Your task to perform on an android device: install app "Life360: Find Family & Friends" Image 0: 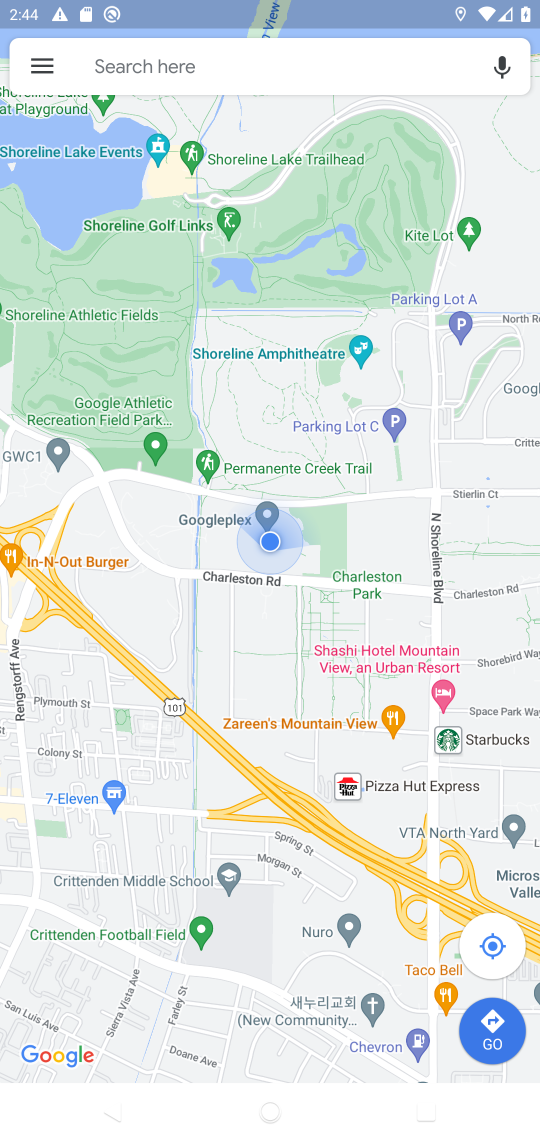
Step 0: press home button
Your task to perform on an android device: install app "Life360: Find Family & Friends" Image 1: 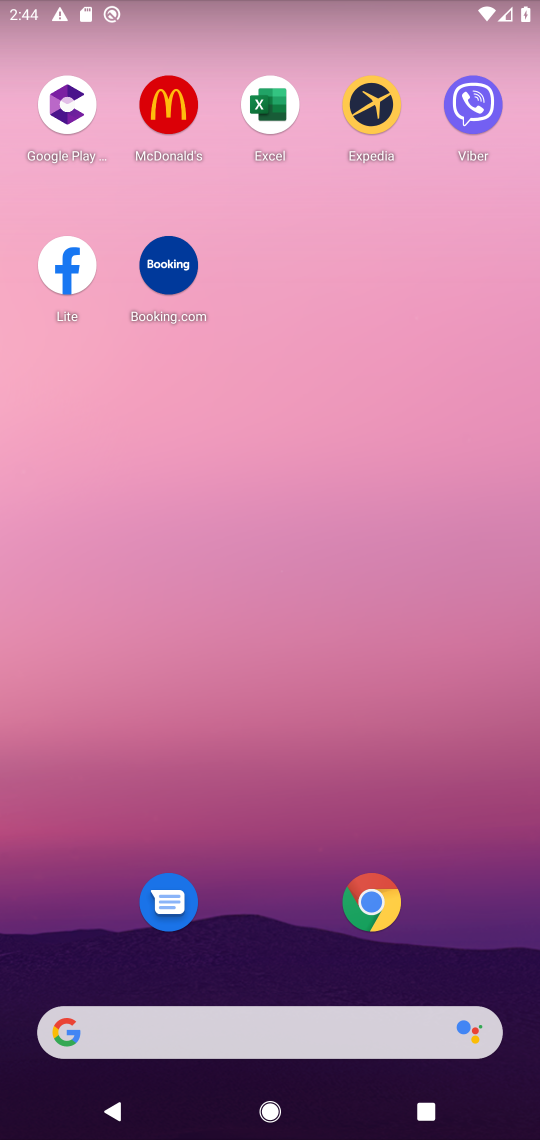
Step 1: drag from (205, 713) to (230, 84)
Your task to perform on an android device: install app "Life360: Find Family & Friends" Image 2: 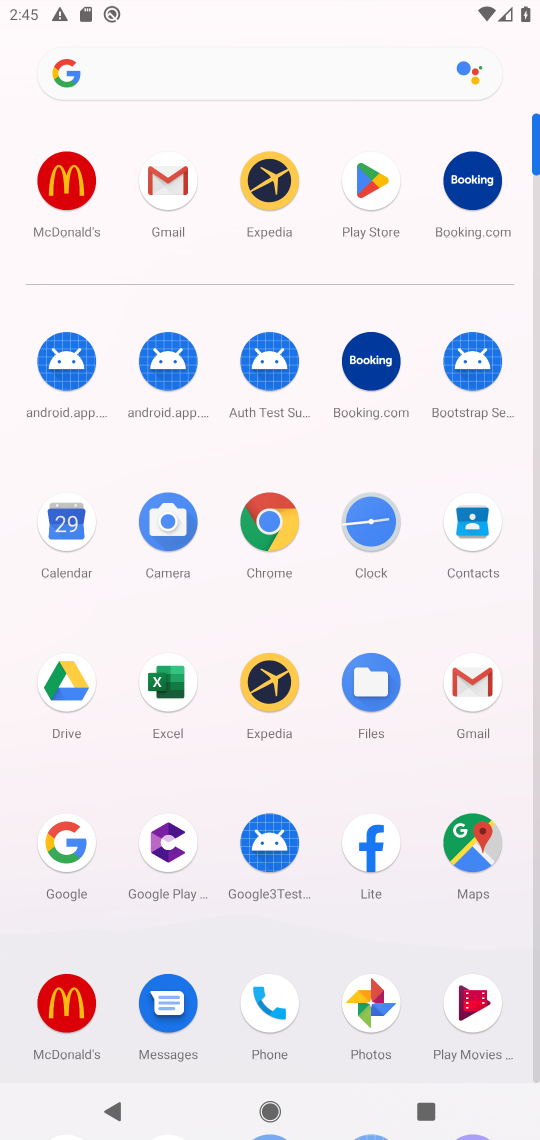
Step 2: click (370, 175)
Your task to perform on an android device: install app "Life360: Find Family & Friends" Image 3: 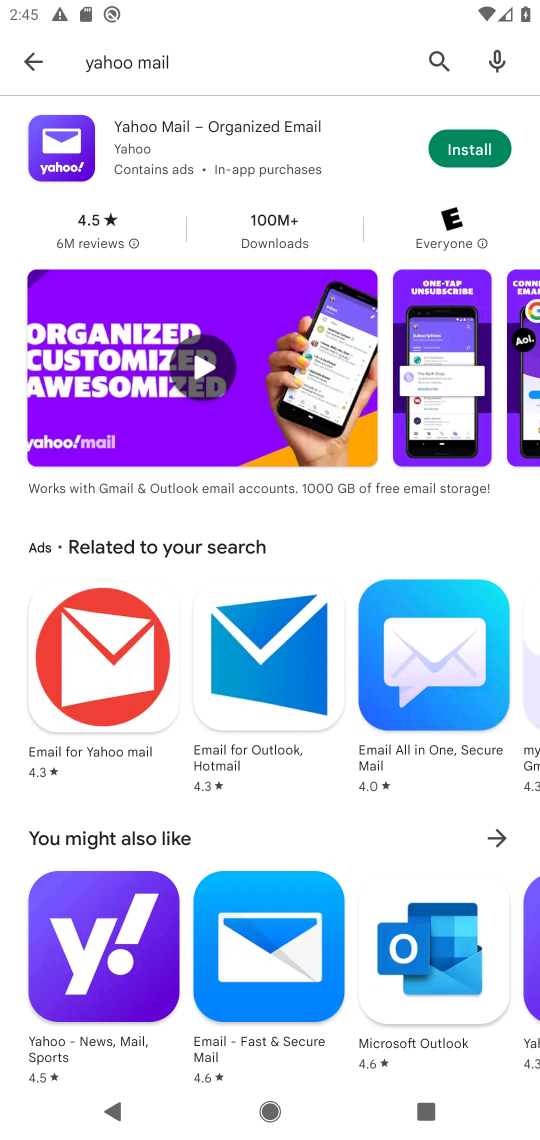
Step 3: click (35, 62)
Your task to perform on an android device: install app "Life360: Find Family & Friends" Image 4: 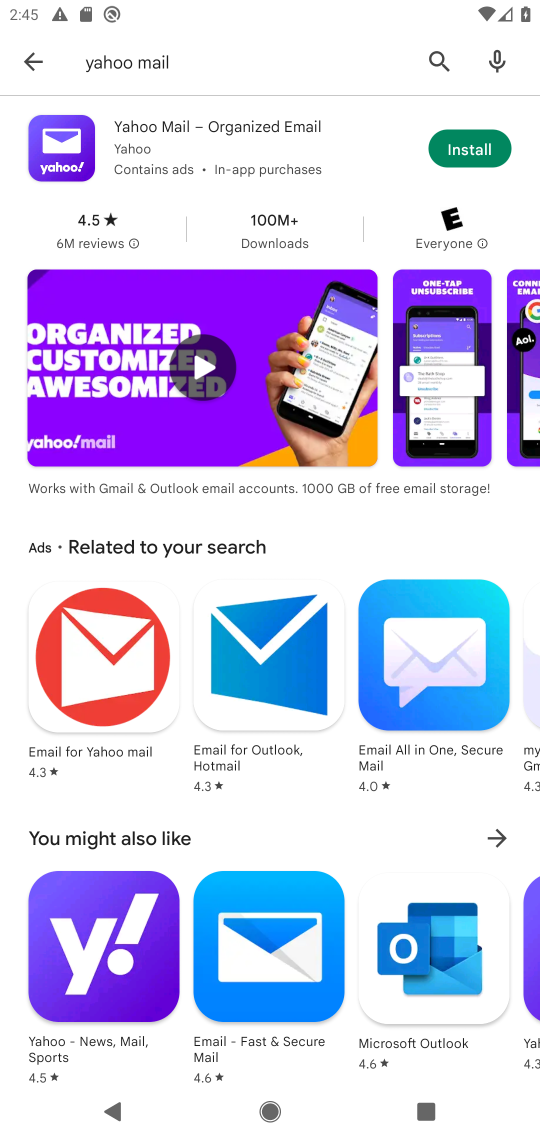
Step 4: click (443, 60)
Your task to perform on an android device: install app "Life360: Find Family & Friends" Image 5: 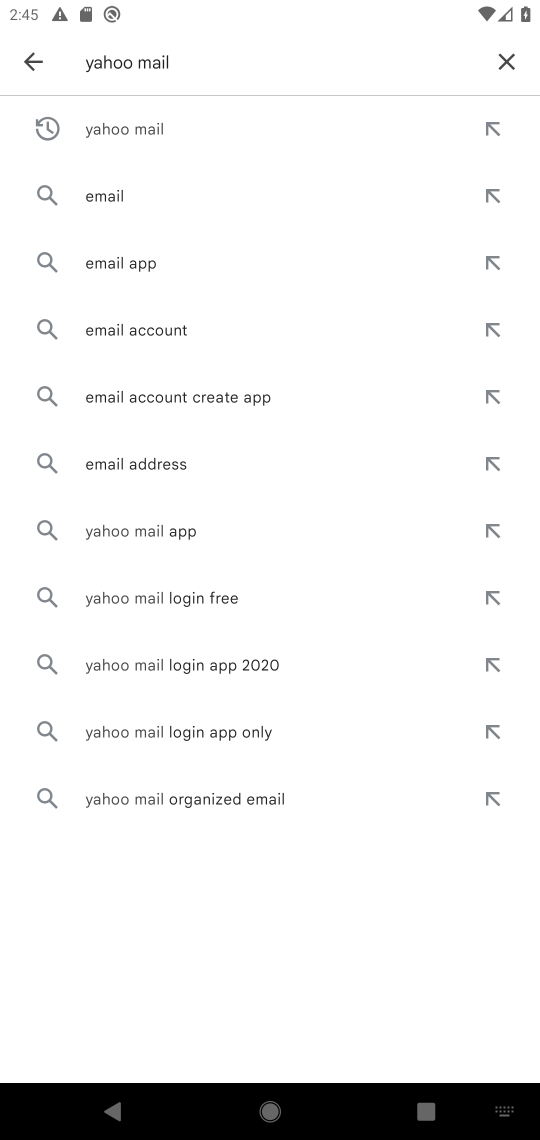
Step 5: click (510, 60)
Your task to perform on an android device: install app "Life360: Find Family & Friends" Image 6: 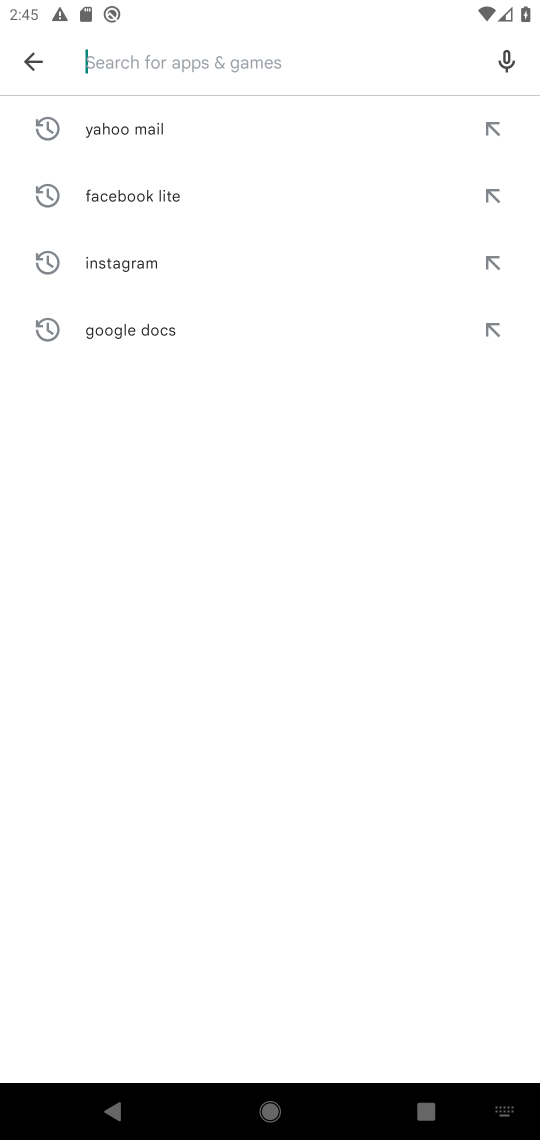
Step 6: type "Life360: Find Family & Friends"
Your task to perform on an android device: install app "Life360: Find Family & Friends" Image 7: 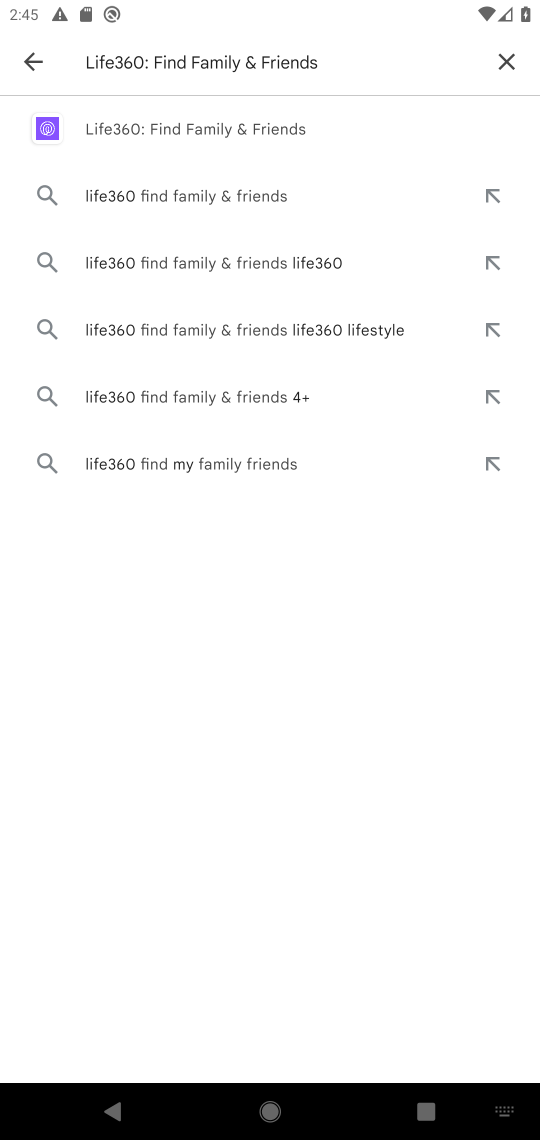
Step 7: click (233, 134)
Your task to perform on an android device: install app "Life360: Find Family & Friends" Image 8: 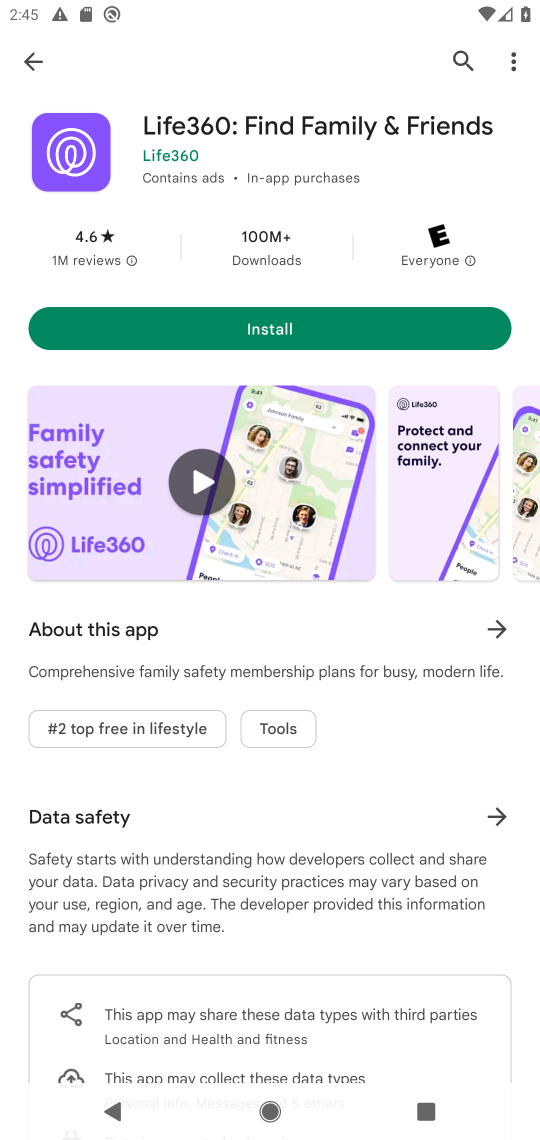
Step 8: click (300, 319)
Your task to perform on an android device: install app "Life360: Find Family & Friends" Image 9: 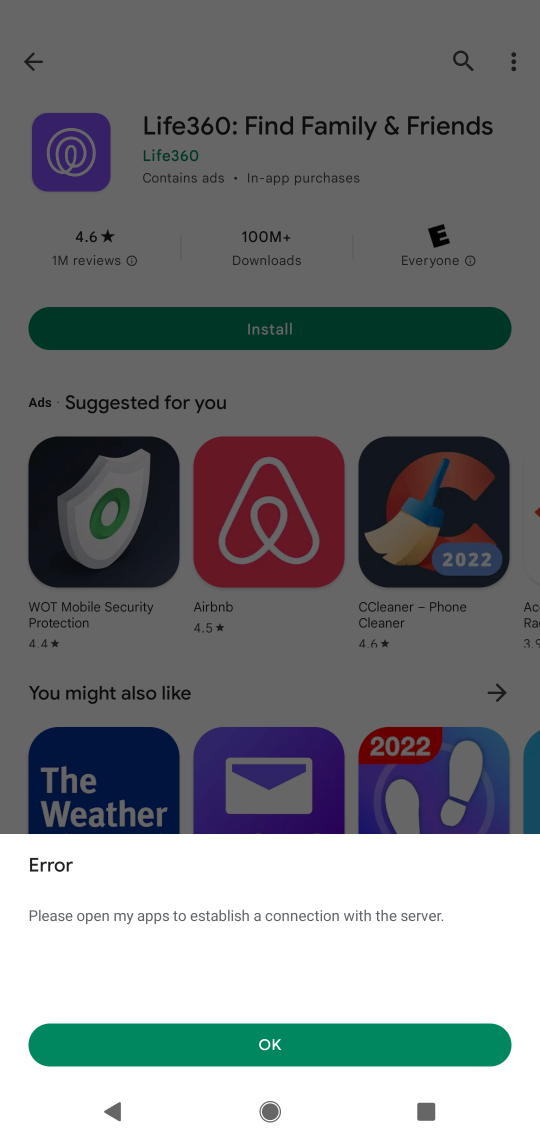
Step 9: task complete